Your task to perform on an android device: turn on the 12-hour format for clock Image 0: 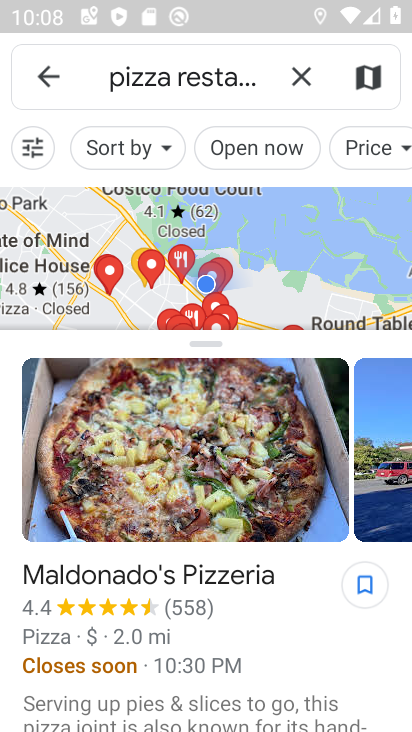
Step 0: press home button
Your task to perform on an android device: turn on the 12-hour format for clock Image 1: 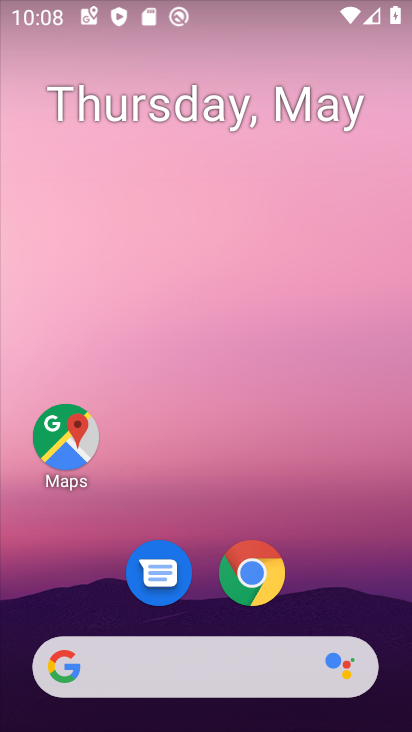
Step 1: drag from (203, 618) to (191, 310)
Your task to perform on an android device: turn on the 12-hour format for clock Image 2: 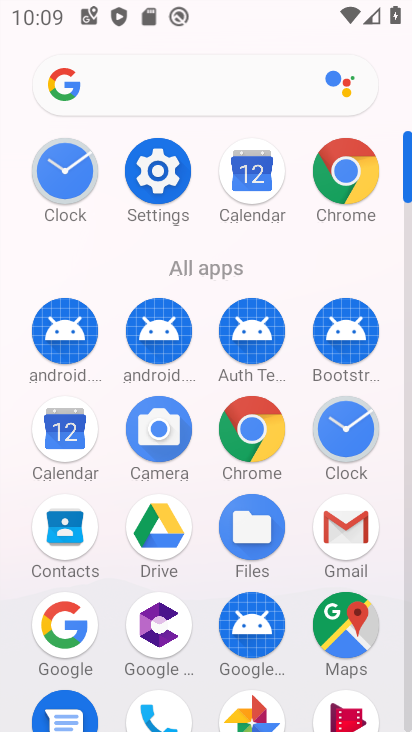
Step 2: click (55, 172)
Your task to perform on an android device: turn on the 12-hour format for clock Image 3: 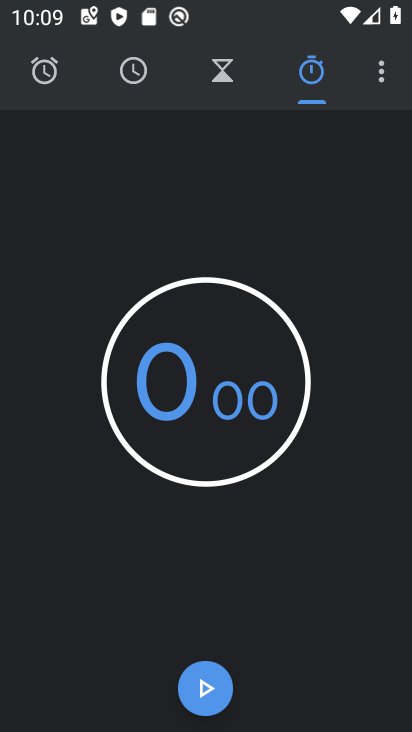
Step 3: click (378, 75)
Your task to perform on an android device: turn on the 12-hour format for clock Image 4: 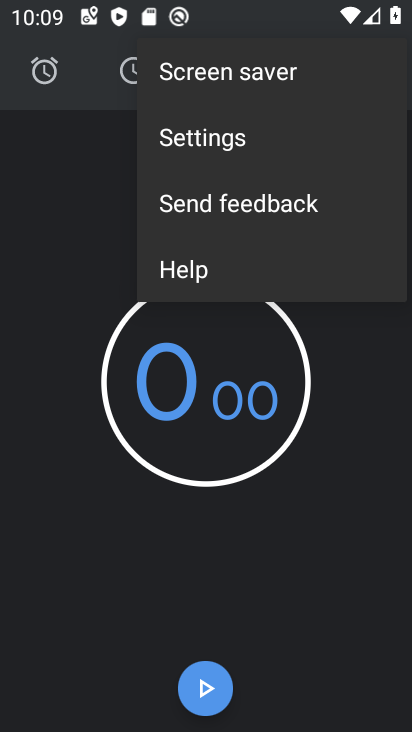
Step 4: click (222, 146)
Your task to perform on an android device: turn on the 12-hour format for clock Image 5: 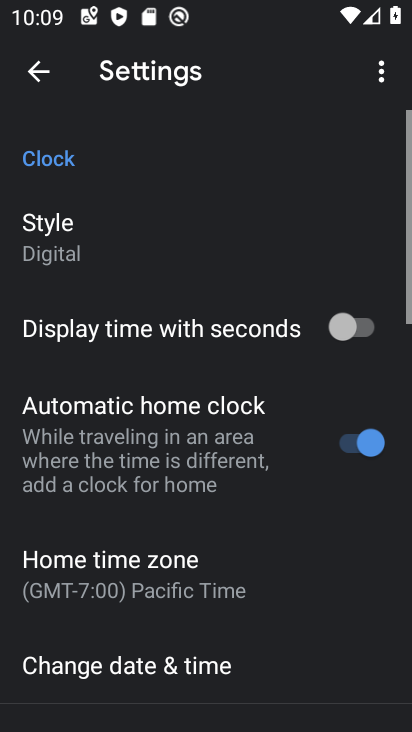
Step 5: drag from (168, 599) to (166, 356)
Your task to perform on an android device: turn on the 12-hour format for clock Image 6: 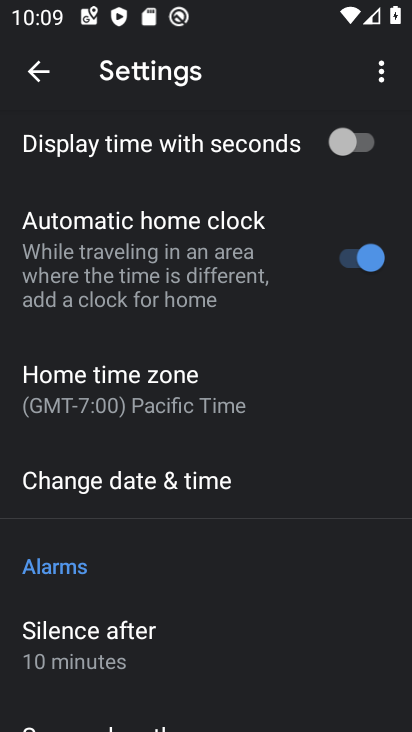
Step 6: click (161, 462)
Your task to perform on an android device: turn on the 12-hour format for clock Image 7: 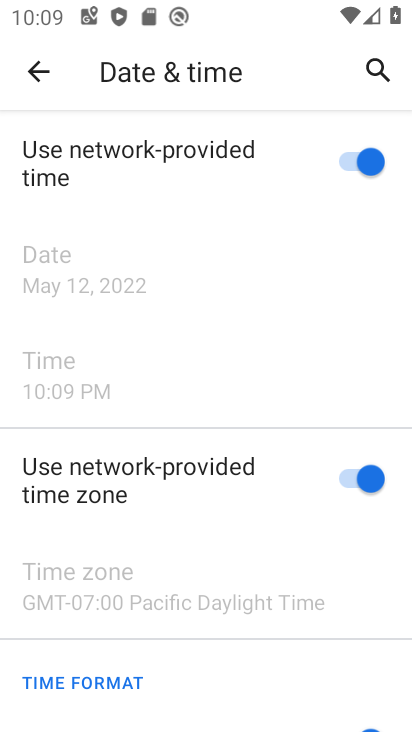
Step 7: drag from (225, 574) to (250, 308)
Your task to perform on an android device: turn on the 12-hour format for clock Image 8: 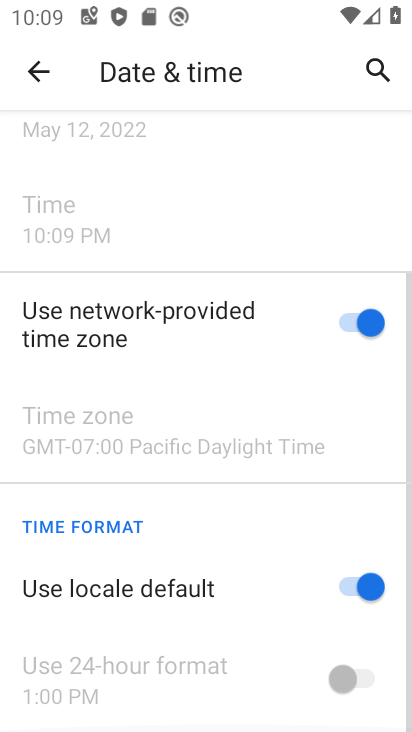
Step 8: drag from (208, 597) to (224, 364)
Your task to perform on an android device: turn on the 12-hour format for clock Image 9: 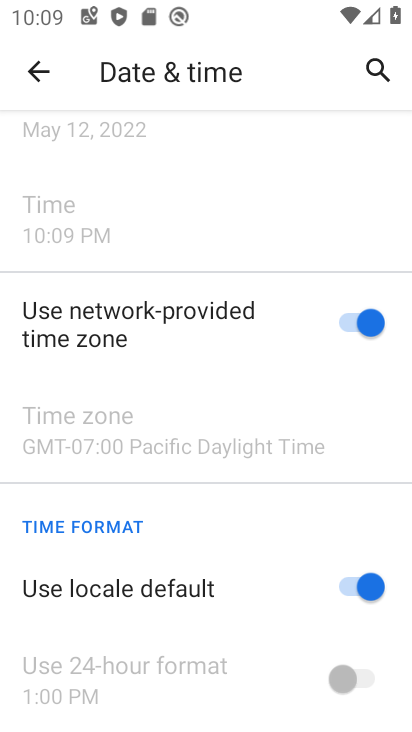
Step 9: click (357, 589)
Your task to perform on an android device: turn on the 12-hour format for clock Image 10: 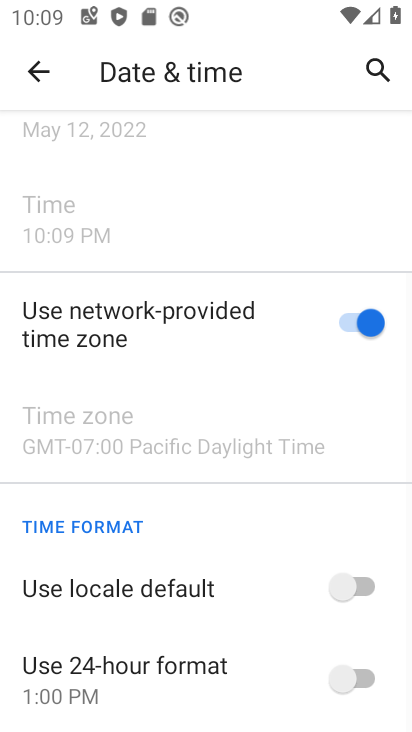
Step 10: click (351, 583)
Your task to perform on an android device: turn on the 12-hour format for clock Image 11: 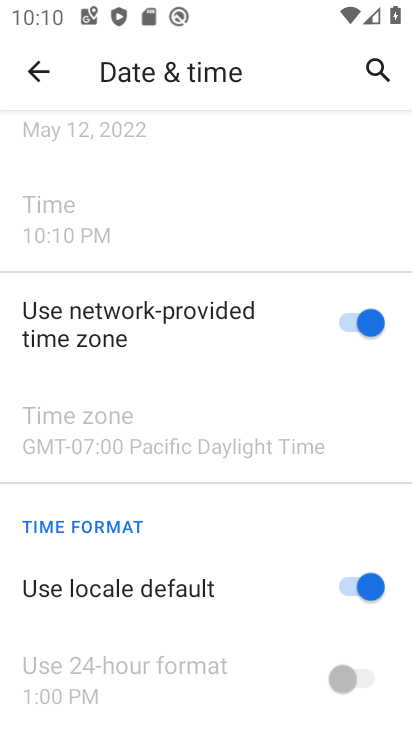
Step 11: task complete